Your task to perform on an android device: move an email to a new category in the gmail app Image 0: 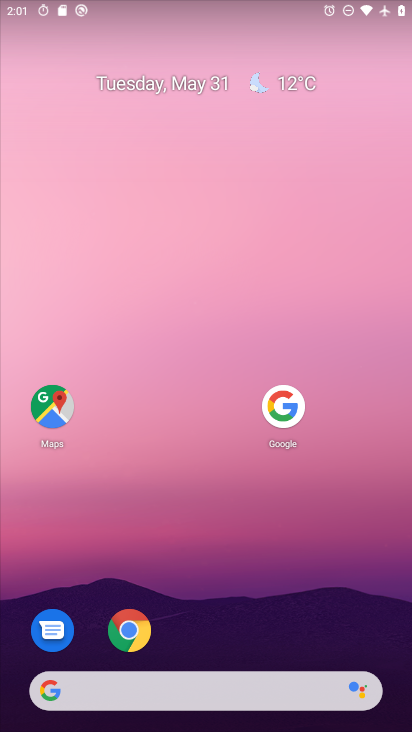
Step 0: press home button
Your task to perform on an android device: move an email to a new category in the gmail app Image 1: 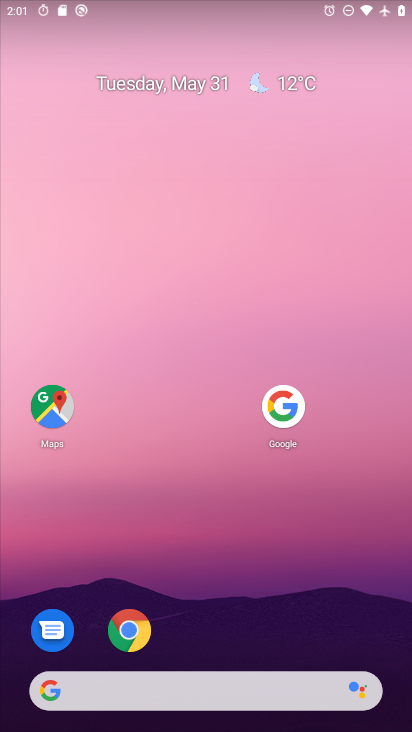
Step 1: drag from (200, 691) to (319, 173)
Your task to perform on an android device: move an email to a new category in the gmail app Image 2: 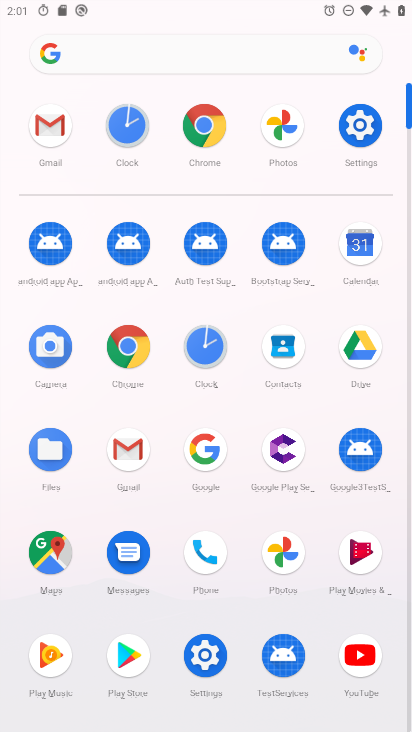
Step 2: click (47, 136)
Your task to perform on an android device: move an email to a new category in the gmail app Image 3: 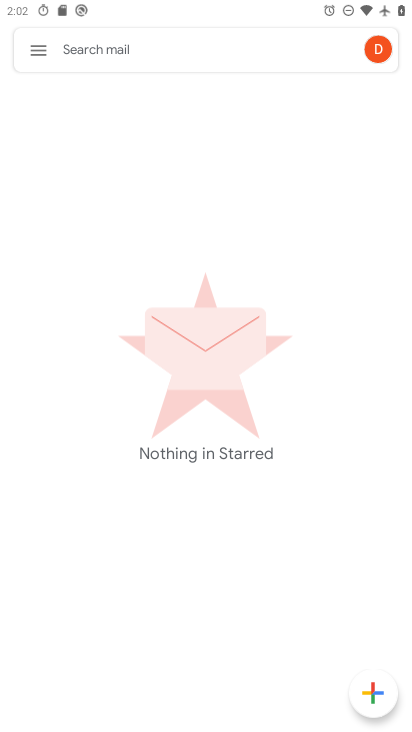
Step 3: task complete